Your task to perform on an android device: Set the phone to "Do not disturb". Image 0: 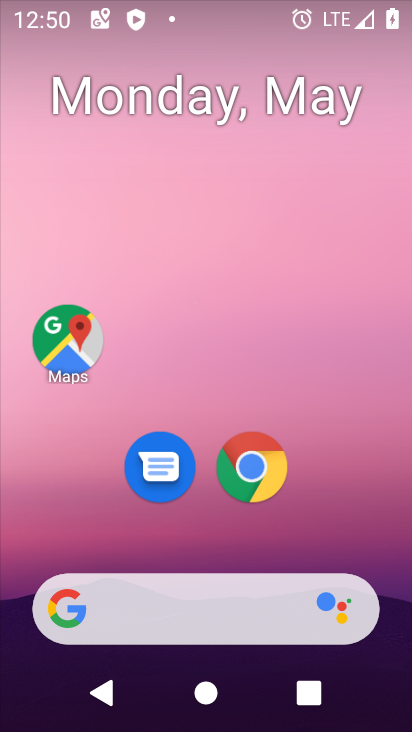
Step 0: click (386, 580)
Your task to perform on an android device: Set the phone to "Do not disturb". Image 1: 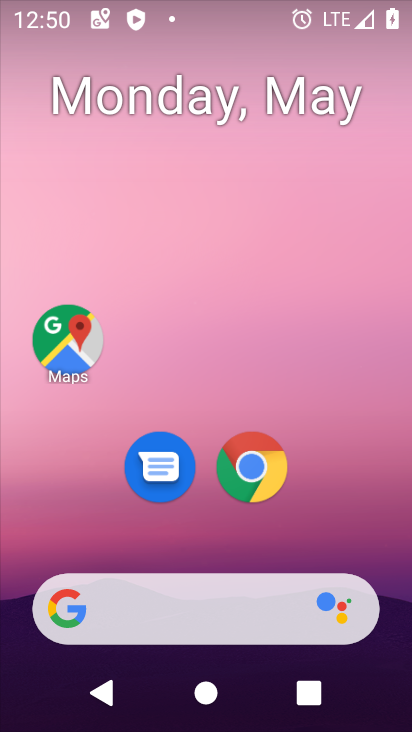
Step 1: drag from (379, 589) to (373, 13)
Your task to perform on an android device: Set the phone to "Do not disturb". Image 2: 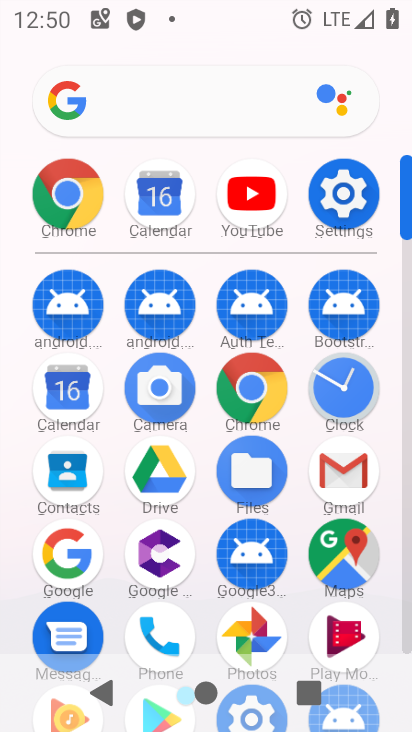
Step 2: click (360, 192)
Your task to perform on an android device: Set the phone to "Do not disturb". Image 3: 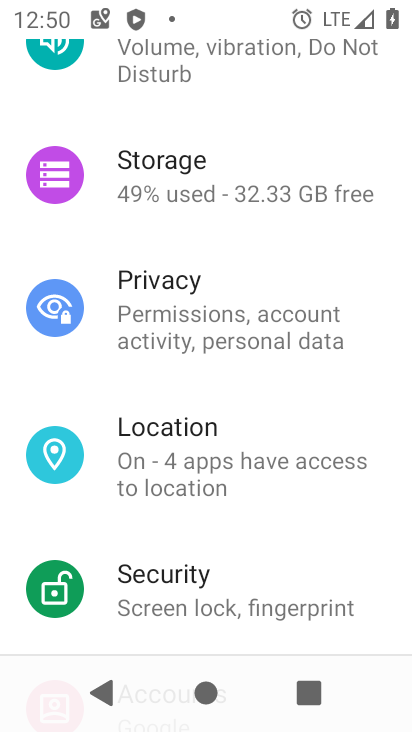
Step 3: drag from (268, 324) to (265, 577)
Your task to perform on an android device: Set the phone to "Do not disturb". Image 4: 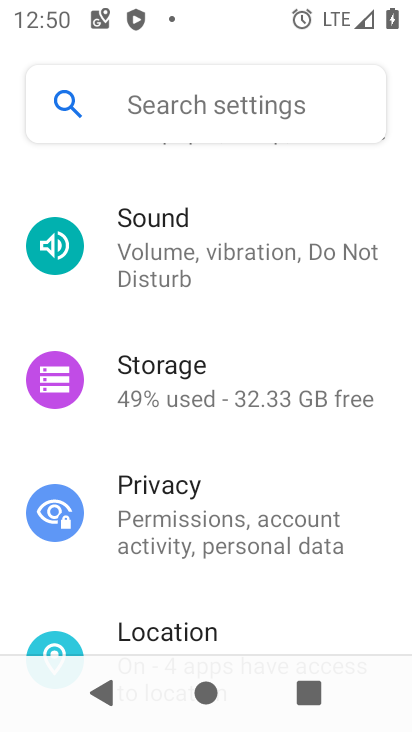
Step 4: click (186, 260)
Your task to perform on an android device: Set the phone to "Do not disturb". Image 5: 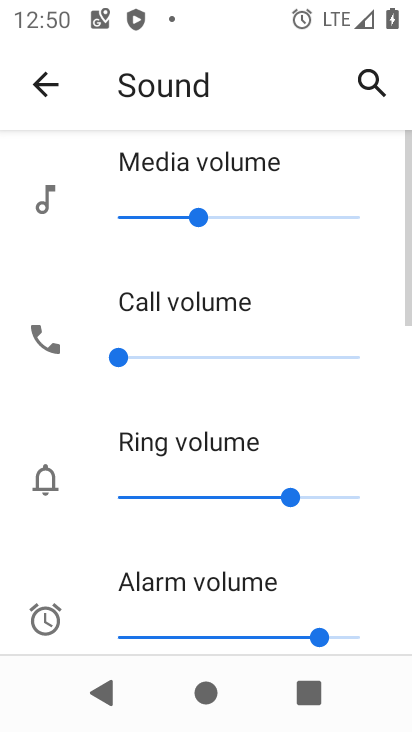
Step 5: drag from (280, 557) to (285, 84)
Your task to perform on an android device: Set the phone to "Do not disturb". Image 6: 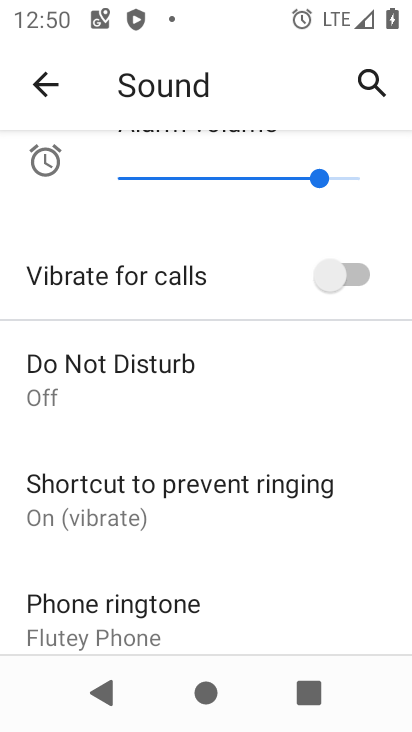
Step 6: click (74, 371)
Your task to perform on an android device: Set the phone to "Do not disturb". Image 7: 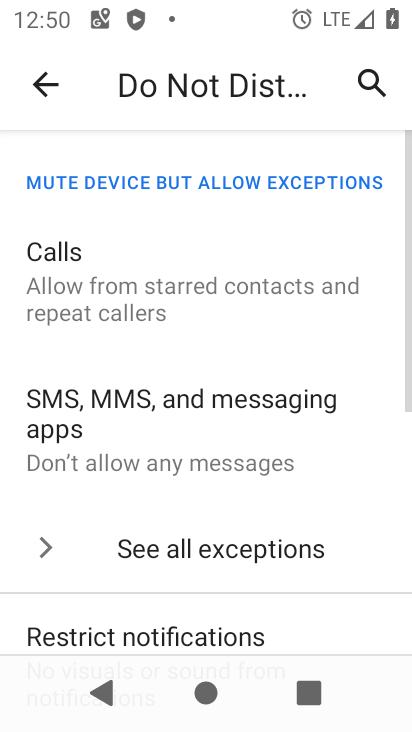
Step 7: drag from (197, 485) to (199, 41)
Your task to perform on an android device: Set the phone to "Do not disturb". Image 8: 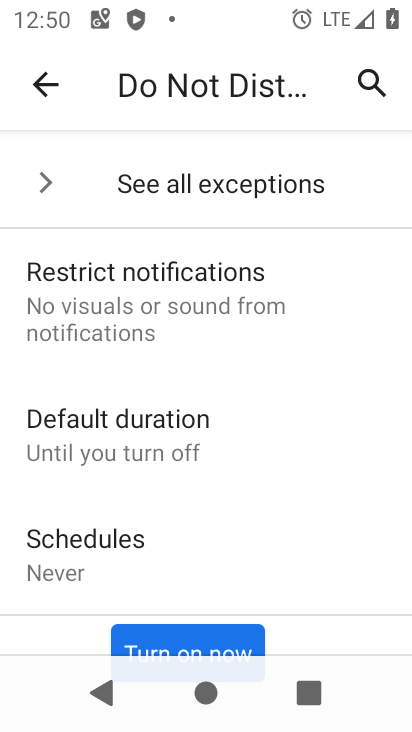
Step 8: drag from (197, 482) to (212, 79)
Your task to perform on an android device: Set the phone to "Do not disturb". Image 9: 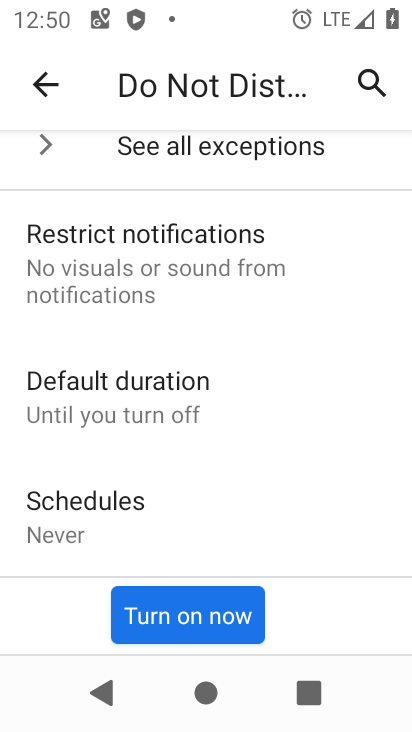
Step 9: click (177, 607)
Your task to perform on an android device: Set the phone to "Do not disturb". Image 10: 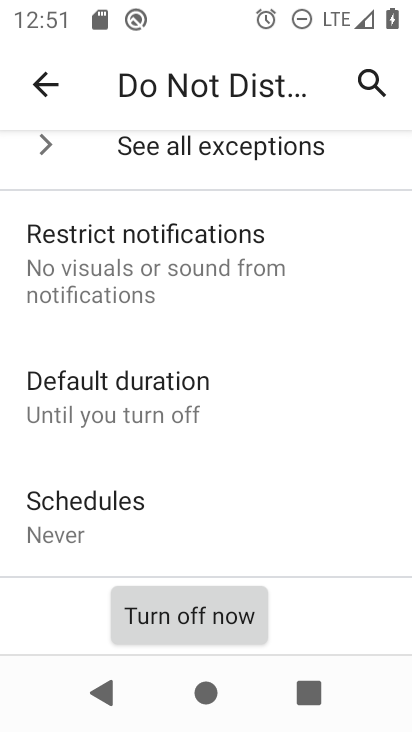
Step 10: task complete